Your task to perform on an android device: Open Google Maps and go to "Timeline" Image 0: 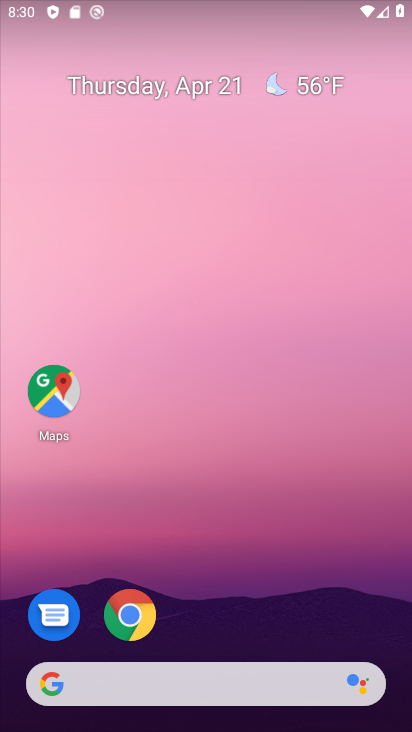
Step 0: press back button
Your task to perform on an android device: Open Google Maps and go to "Timeline" Image 1: 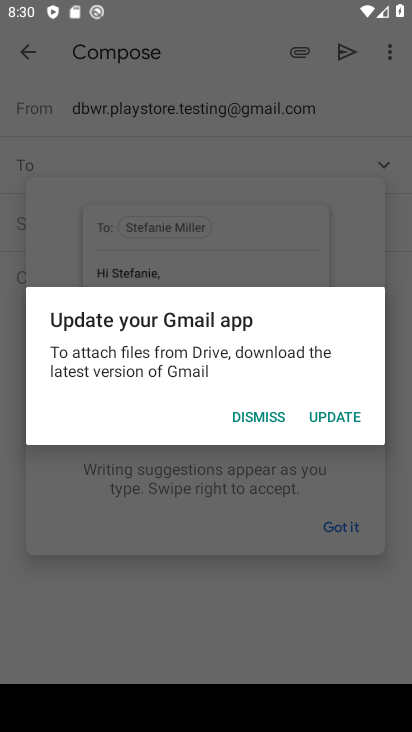
Step 1: press home button
Your task to perform on an android device: Open Google Maps and go to "Timeline" Image 2: 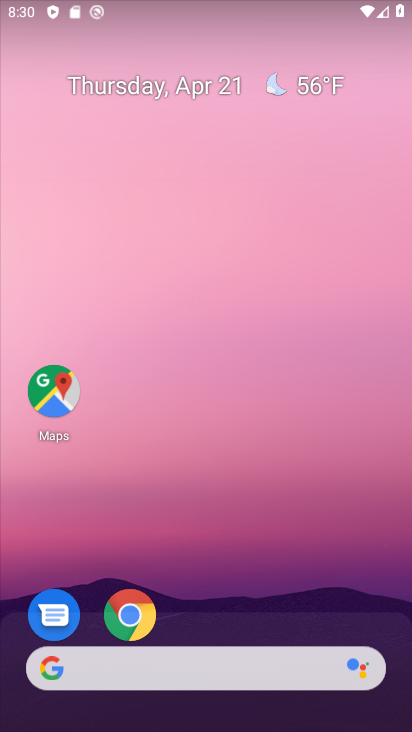
Step 2: drag from (212, 578) to (186, 175)
Your task to perform on an android device: Open Google Maps and go to "Timeline" Image 3: 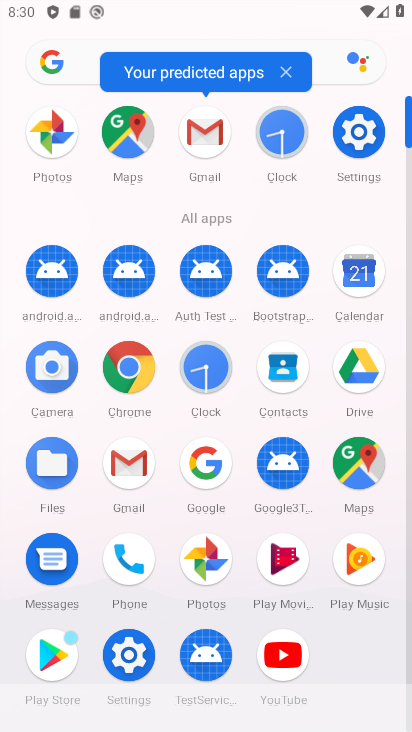
Step 3: click (128, 158)
Your task to perform on an android device: Open Google Maps and go to "Timeline" Image 4: 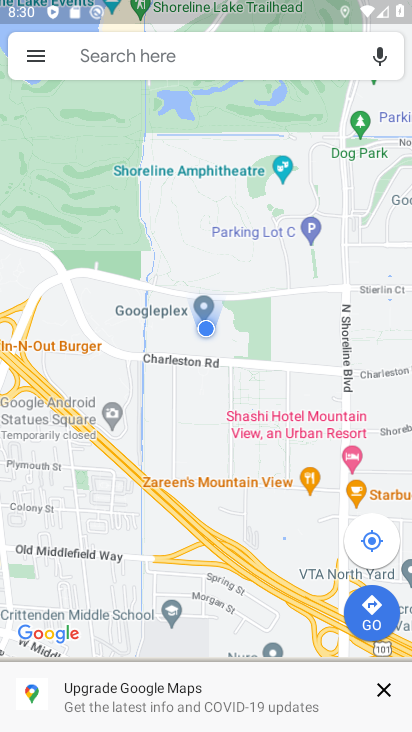
Step 4: click (32, 63)
Your task to perform on an android device: Open Google Maps and go to "Timeline" Image 5: 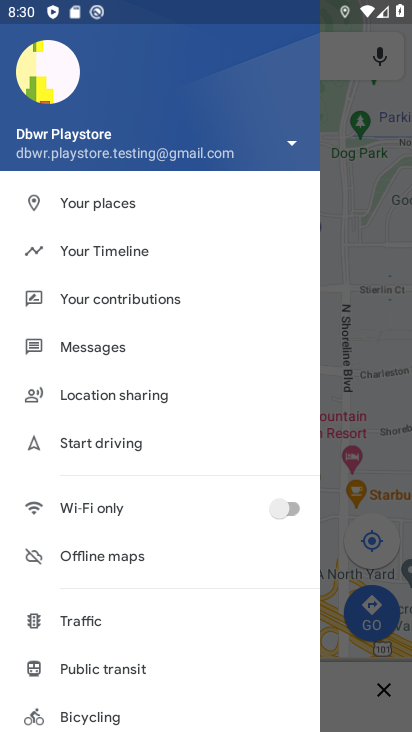
Step 5: click (106, 253)
Your task to perform on an android device: Open Google Maps and go to "Timeline" Image 6: 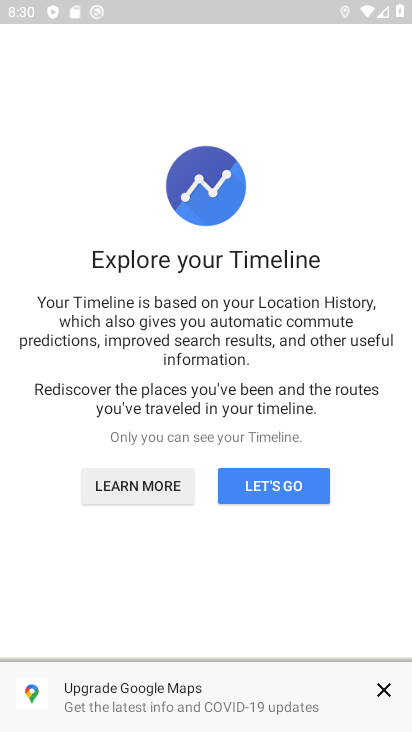
Step 6: click (236, 488)
Your task to perform on an android device: Open Google Maps and go to "Timeline" Image 7: 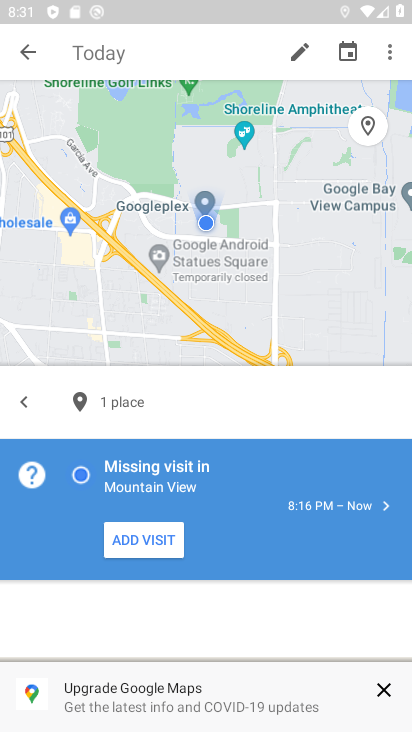
Step 7: task complete